Your task to perform on an android device: Search for Italian restaurants on Maps Image 0: 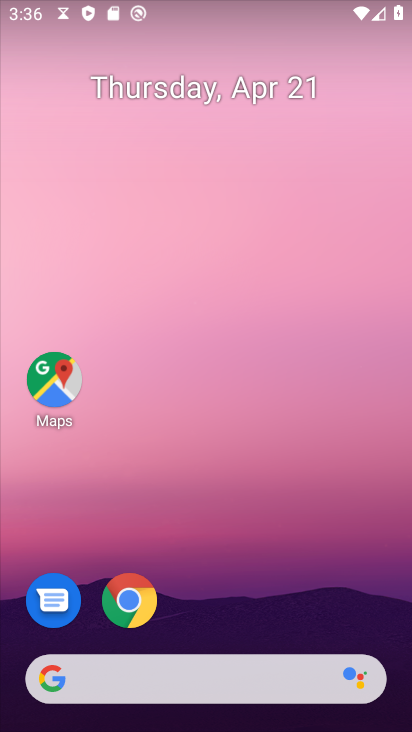
Step 0: click (52, 383)
Your task to perform on an android device: Search for Italian restaurants on Maps Image 1: 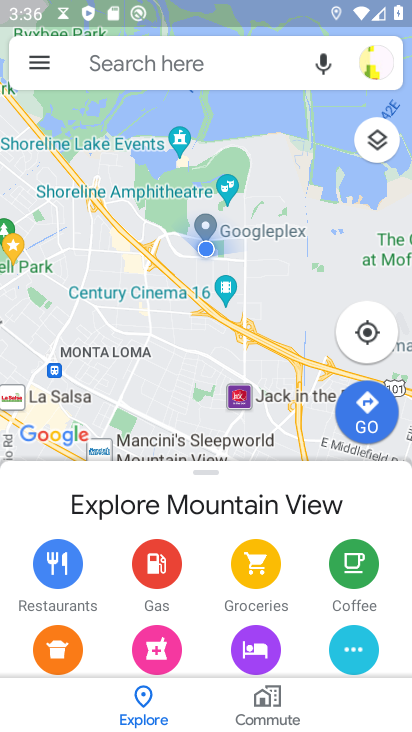
Step 1: click (226, 65)
Your task to perform on an android device: Search for Italian restaurants on Maps Image 2: 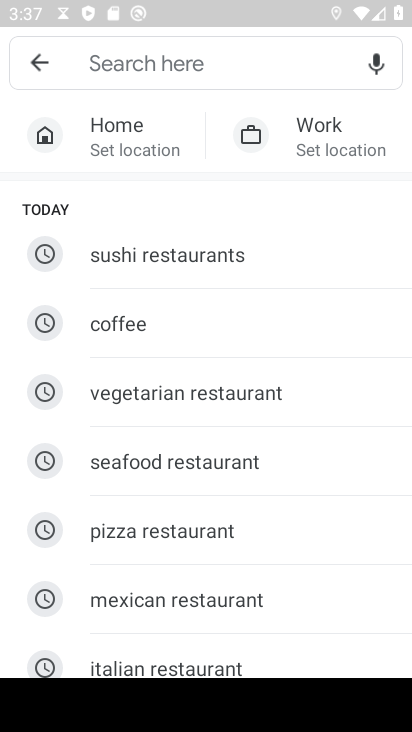
Step 2: type "Italian restaurants"
Your task to perform on an android device: Search for Italian restaurants on Maps Image 3: 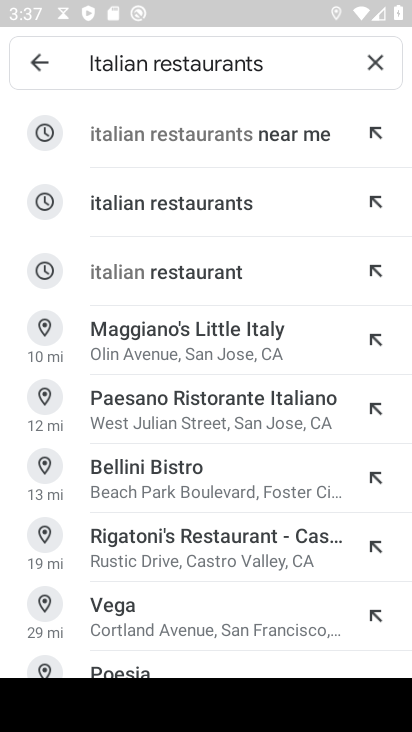
Step 3: click (208, 206)
Your task to perform on an android device: Search for Italian restaurants on Maps Image 4: 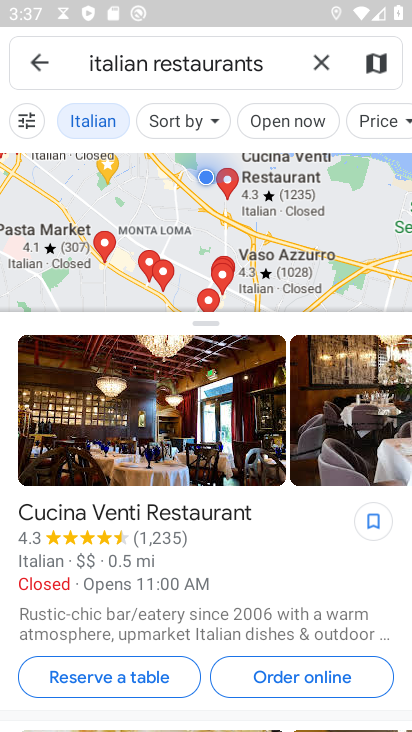
Step 4: task complete